Your task to perform on an android device: Is it going to rain tomorrow? Image 0: 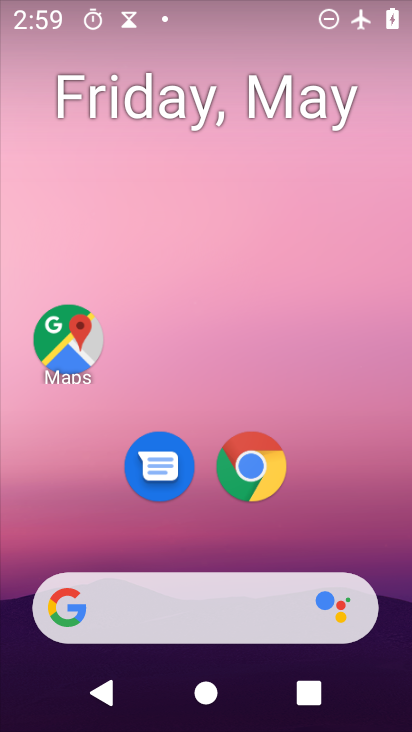
Step 0: drag from (347, 532) to (294, 23)
Your task to perform on an android device: Is it going to rain tomorrow? Image 1: 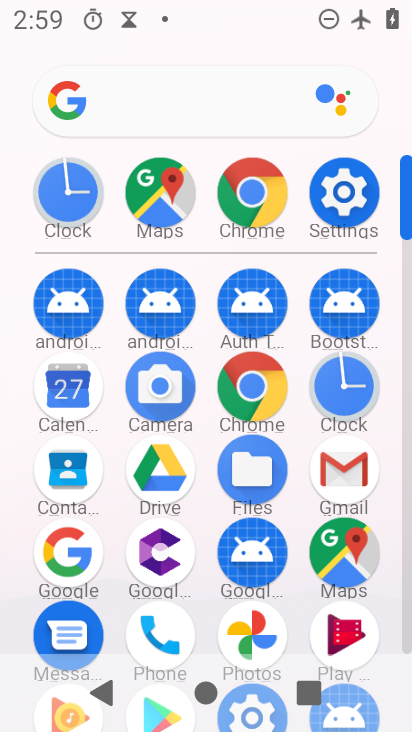
Step 1: click (76, 91)
Your task to perform on an android device: Is it going to rain tomorrow? Image 2: 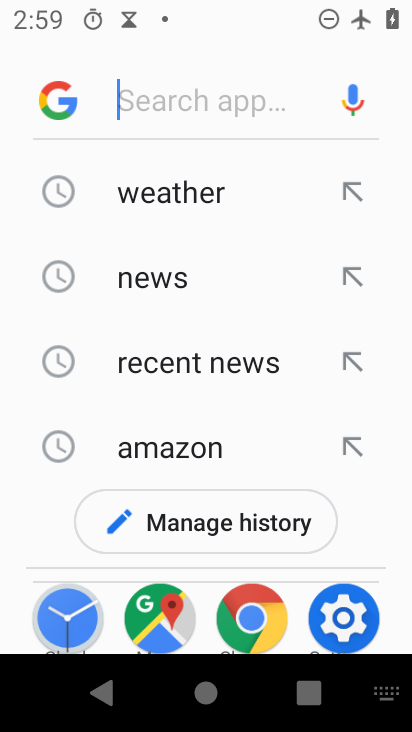
Step 2: click (75, 91)
Your task to perform on an android device: Is it going to rain tomorrow? Image 3: 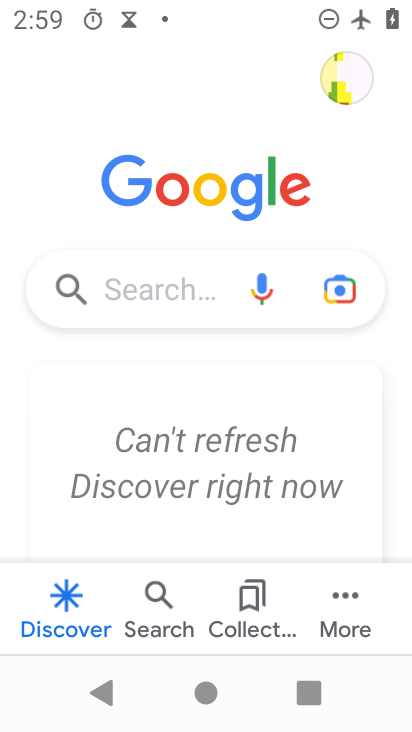
Step 3: drag from (217, 507) to (238, 143)
Your task to perform on an android device: Is it going to rain tomorrow? Image 4: 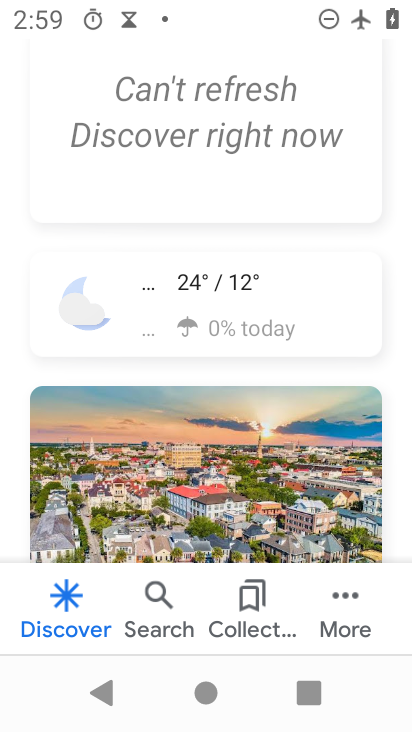
Step 4: click (210, 357)
Your task to perform on an android device: Is it going to rain tomorrow? Image 5: 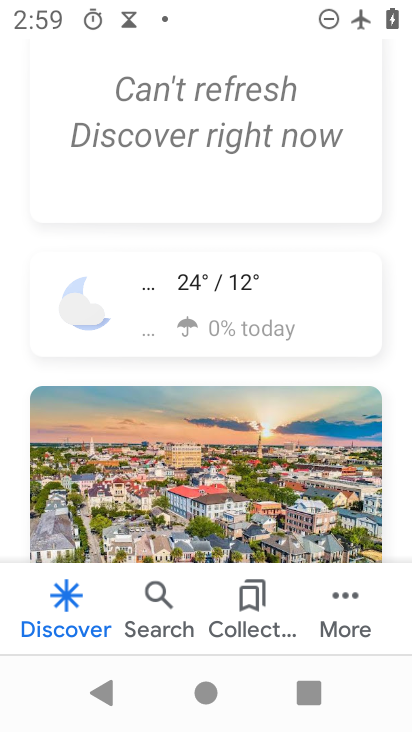
Step 5: click (220, 308)
Your task to perform on an android device: Is it going to rain tomorrow? Image 6: 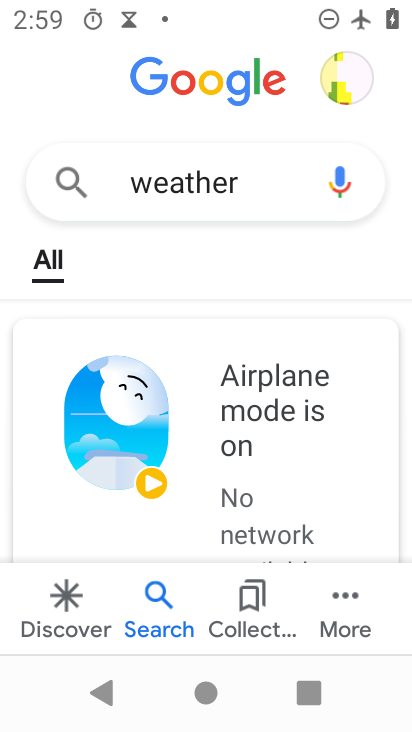
Step 6: task complete